Your task to perform on an android device: What's the weather going to be tomorrow? Image 0: 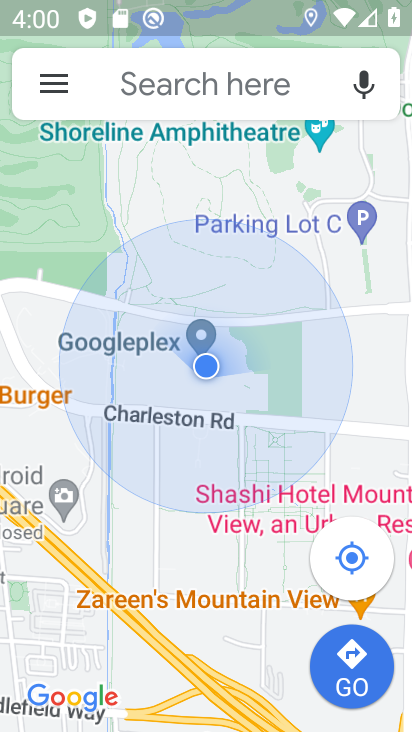
Step 0: press home button
Your task to perform on an android device: What's the weather going to be tomorrow? Image 1: 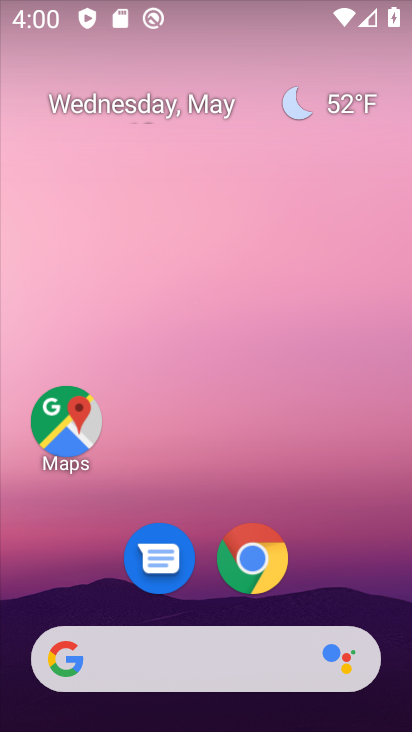
Step 1: drag from (352, 547) to (371, 83)
Your task to perform on an android device: What's the weather going to be tomorrow? Image 2: 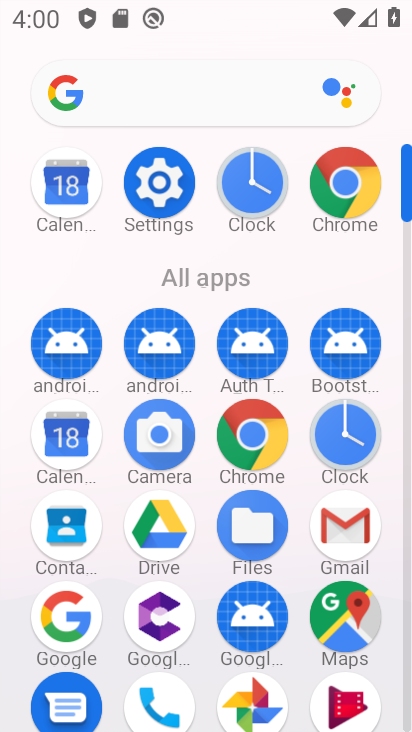
Step 2: click (58, 614)
Your task to perform on an android device: What's the weather going to be tomorrow? Image 3: 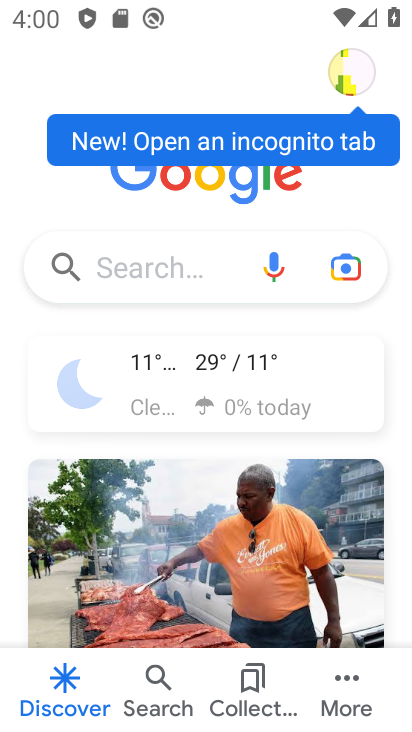
Step 3: click (185, 256)
Your task to perform on an android device: What's the weather going to be tomorrow? Image 4: 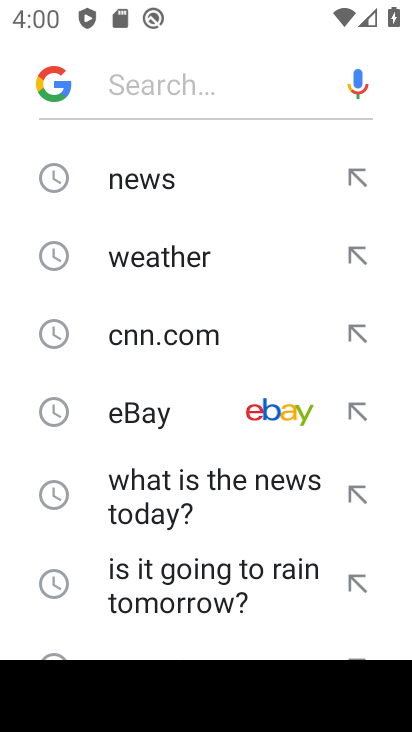
Step 4: drag from (220, 613) to (277, 253)
Your task to perform on an android device: What's the weather going to be tomorrow? Image 5: 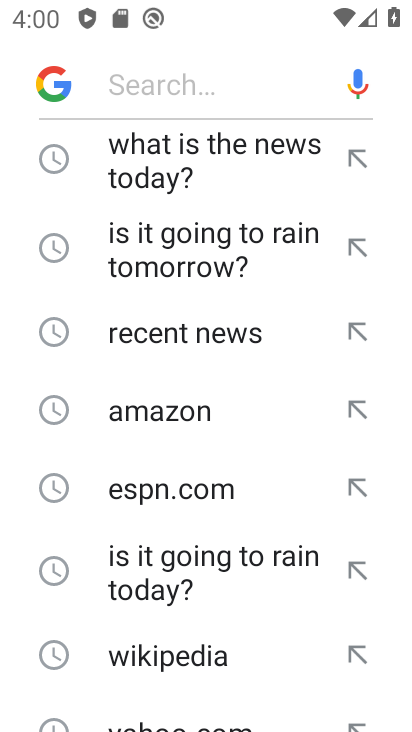
Step 5: drag from (260, 589) to (272, 246)
Your task to perform on an android device: What's the weather going to be tomorrow? Image 6: 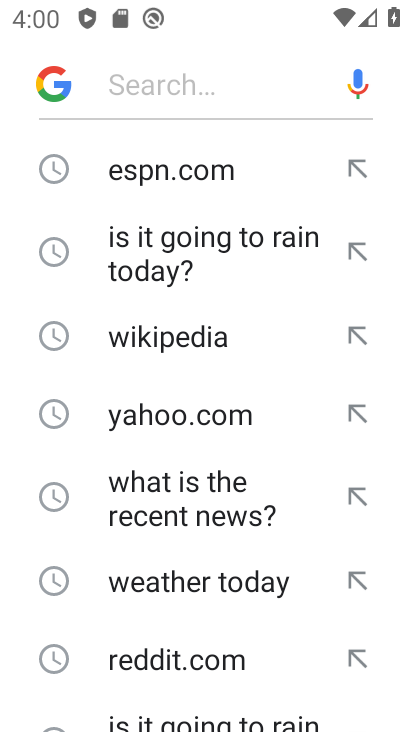
Step 6: drag from (243, 623) to (239, 279)
Your task to perform on an android device: What's the weather going to be tomorrow? Image 7: 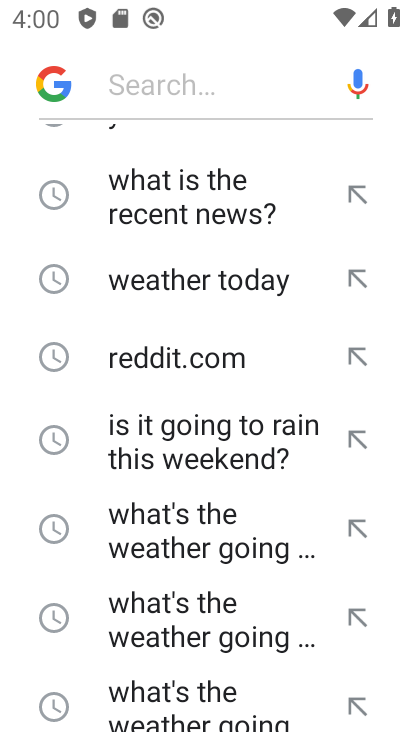
Step 7: click (237, 557)
Your task to perform on an android device: What's the weather going to be tomorrow? Image 8: 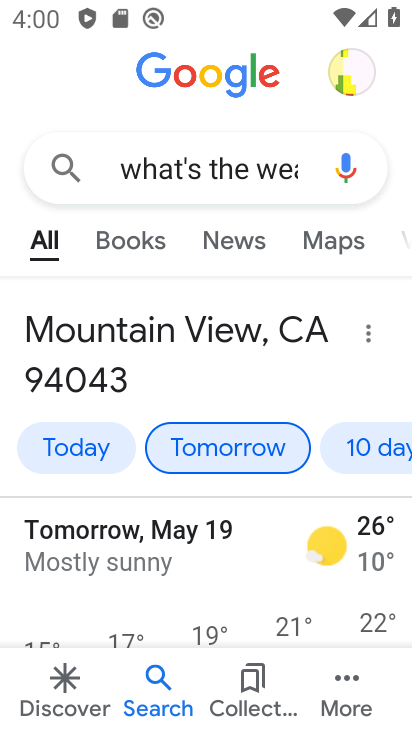
Step 8: task complete